Your task to perform on an android device: Go to Maps Image 0: 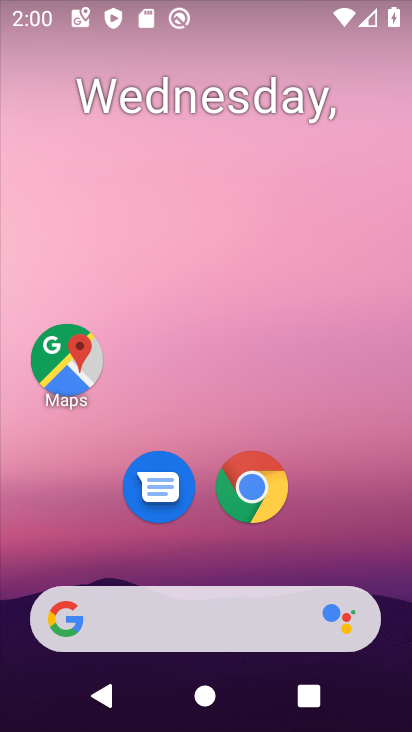
Step 0: click (250, 482)
Your task to perform on an android device: Go to Maps Image 1: 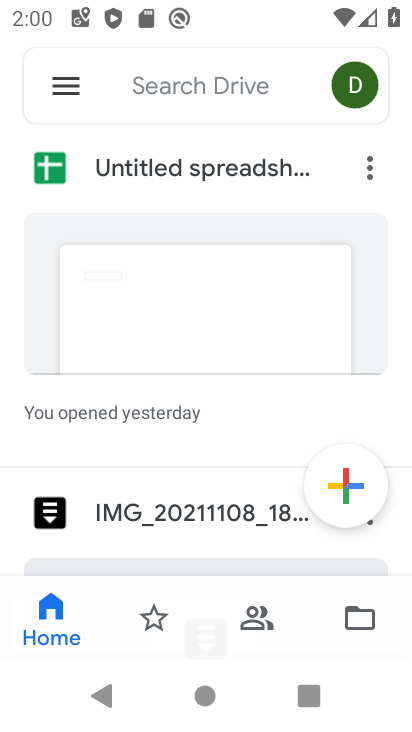
Step 1: press home button
Your task to perform on an android device: Go to Maps Image 2: 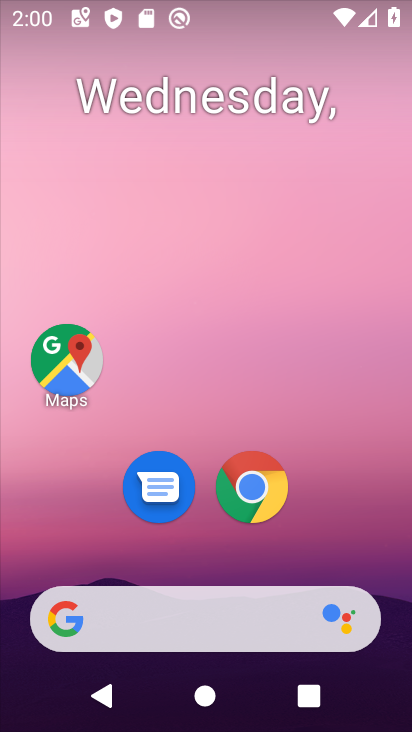
Step 2: click (67, 349)
Your task to perform on an android device: Go to Maps Image 3: 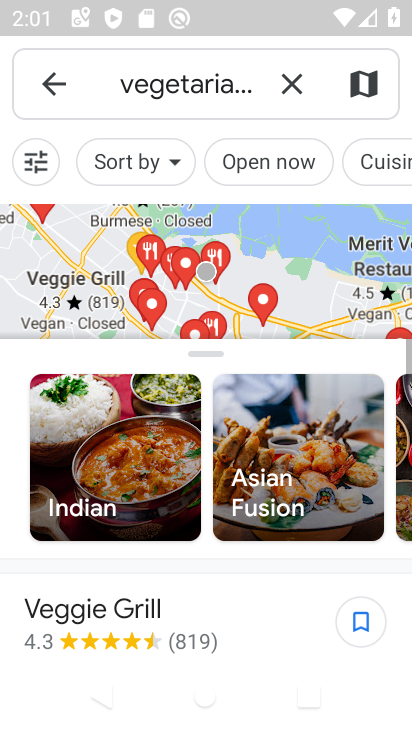
Step 3: task complete